Your task to perform on an android device: delete location history Image 0: 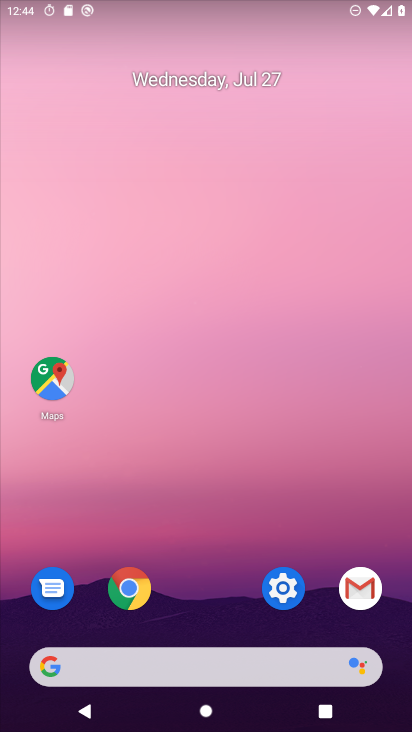
Step 0: drag from (223, 689) to (265, 185)
Your task to perform on an android device: delete location history Image 1: 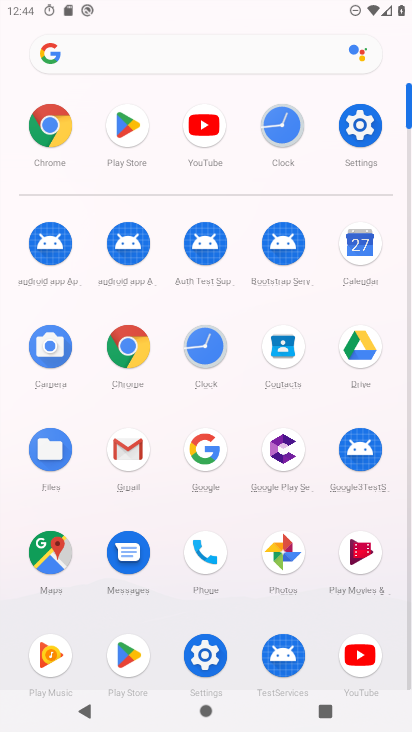
Step 1: click (360, 137)
Your task to perform on an android device: delete location history Image 2: 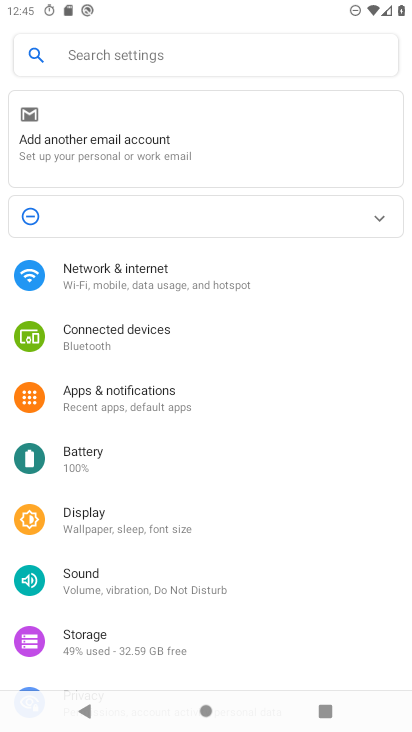
Step 2: drag from (135, 646) to (161, 500)
Your task to perform on an android device: delete location history Image 3: 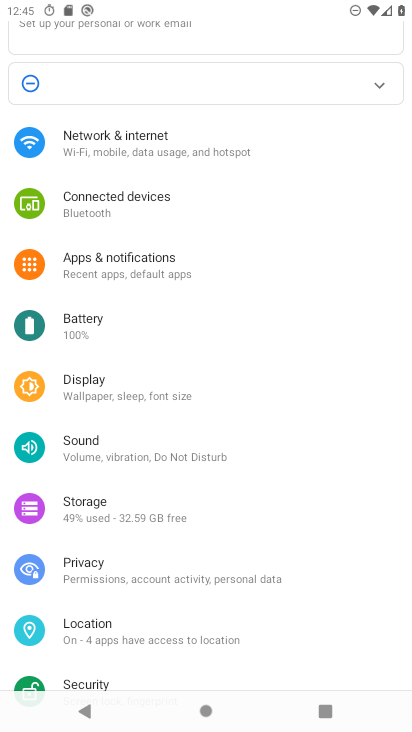
Step 3: click (114, 616)
Your task to perform on an android device: delete location history Image 4: 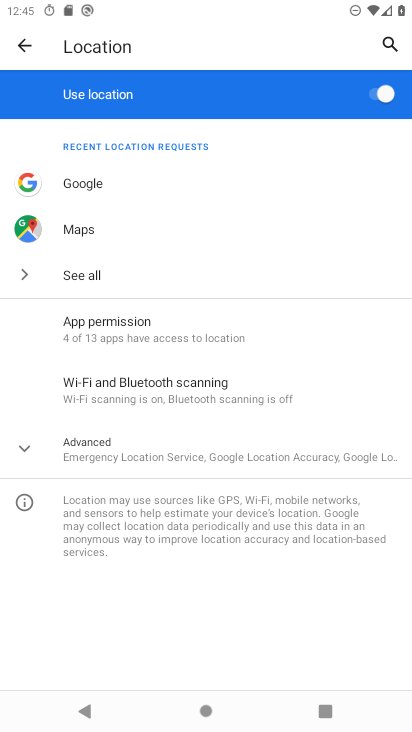
Step 4: click (39, 443)
Your task to perform on an android device: delete location history Image 5: 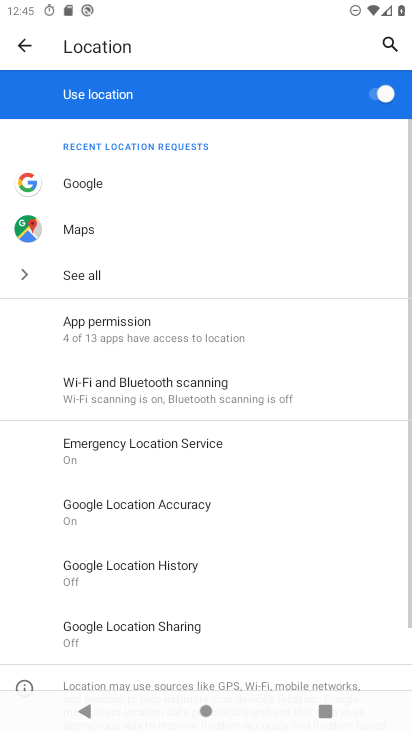
Step 5: click (150, 569)
Your task to perform on an android device: delete location history Image 6: 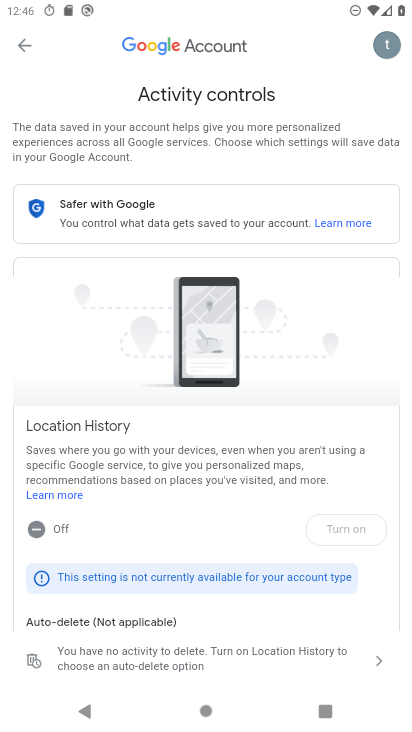
Step 6: task complete